Your task to perform on an android device: find which apps use the phone's location Image 0: 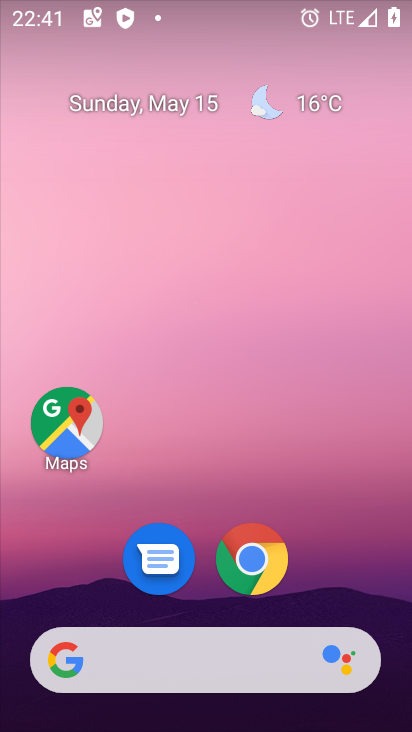
Step 0: drag from (243, 451) to (203, 5)
Your task to perform on an android device: find which apps use the phone's location Image 1: 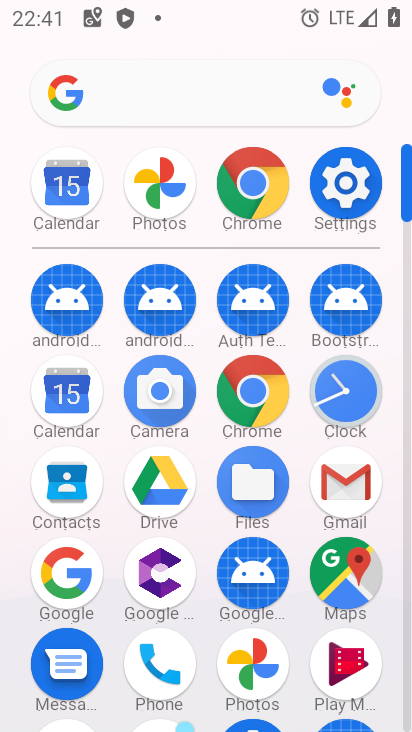
Step 1: click (342, 186)
Your task to perform on an android device: find which apps use the phone's location Image 2: 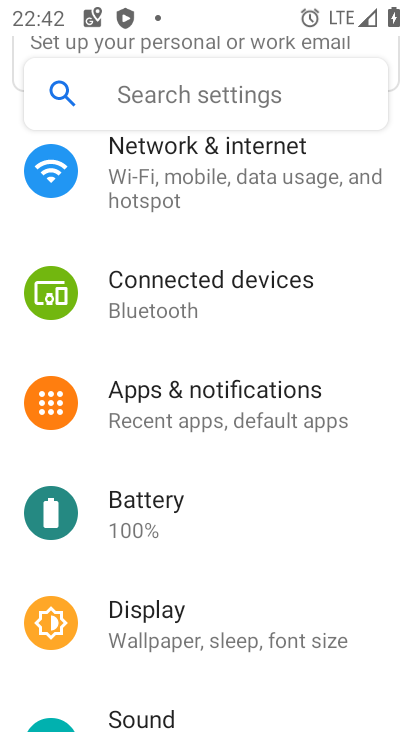
Step 2: drag from (256, 501) to (197, 211)
Your task to perform on an android device: find which apps use the phone's location Image 3: 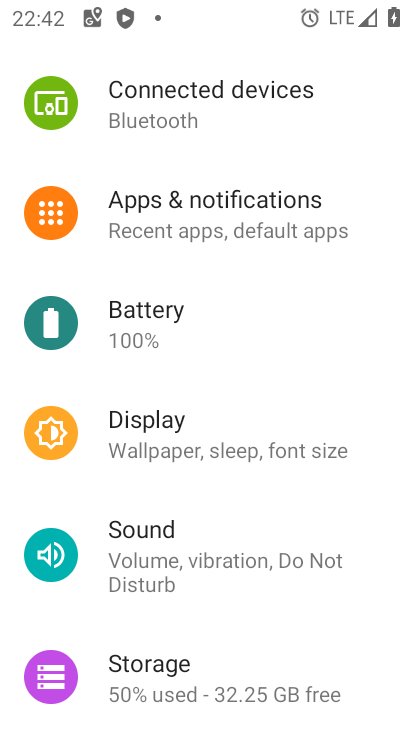
Step 3: drag from (216, 496) to (181, 134)
Your task to perform on an android device: find which apps use the phone's location Image 4: 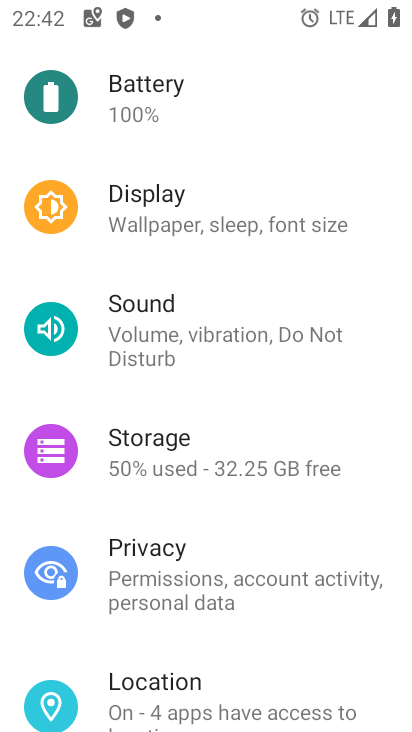
Step 4: drag from (238, 381) to (218, 146)
Your task to perform on an android device: find which apps use the phone's location Image 5: 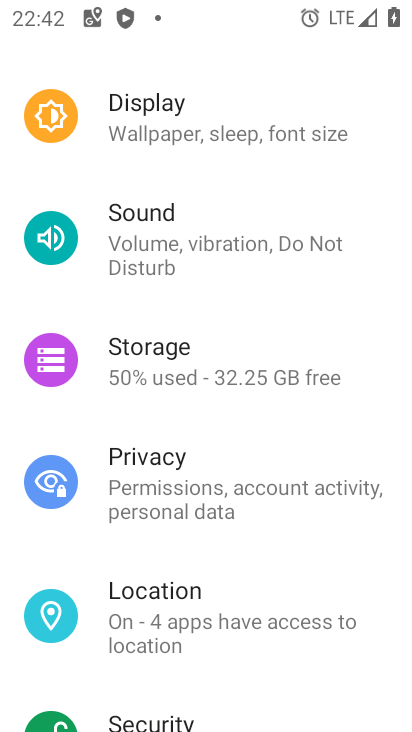
Step 5: click (144, 589)
Your task to perform on an android device: find which apps use the phone's location Image 6: 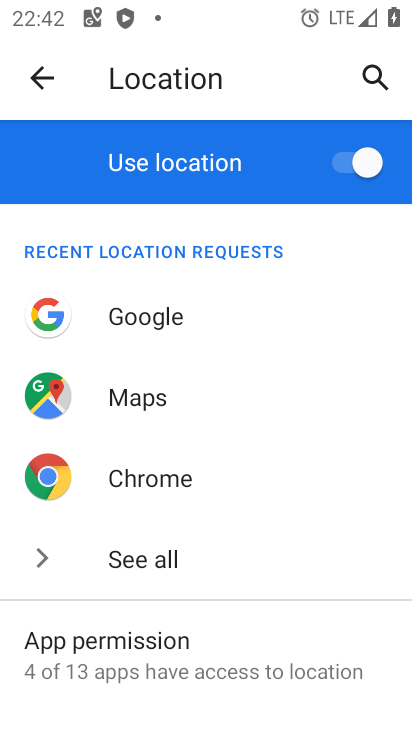
Step 6: drag from (281, 556) to (234, 272)
Your task to perform on an android device: find which apps use the phone's location Image 7: 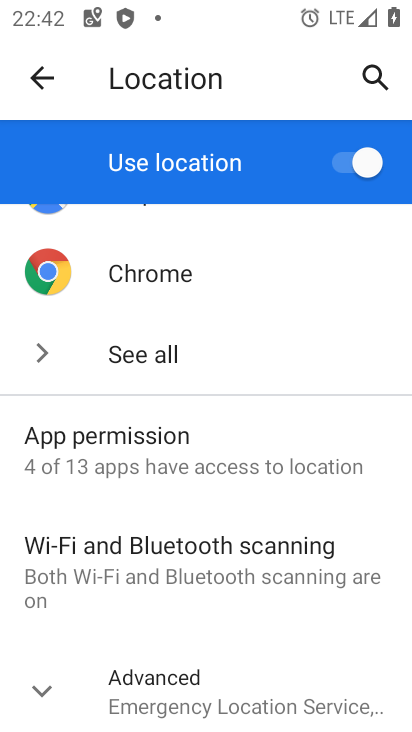
Step 7: drag from (287, 502) to (215, 241)
Your task to perform on an android device: find which apps use the phone's location Image 8: 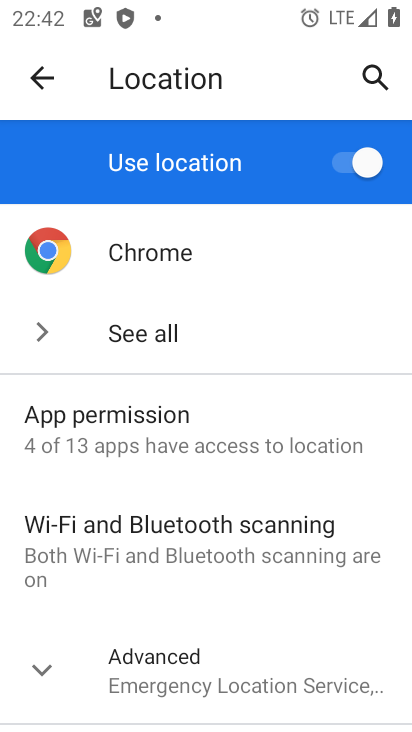
Step 8: click (140, 349)
Your task to perform on an android device: find which apps use the phone's location Image 9: 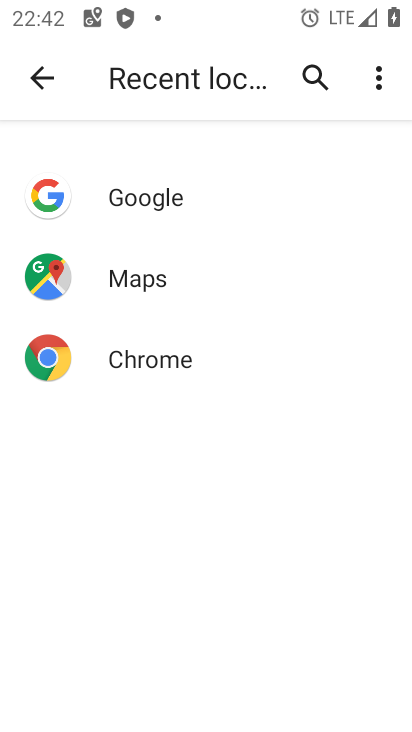
Step 9: task complete